Your task to perform on an android device: remove spam from my inbox in the gmail app Image 0: 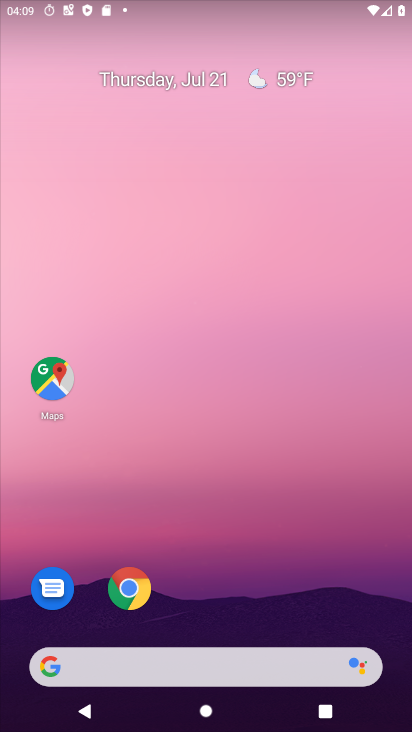
Step 0: drag from (209, 607) to (217, 67)
Your task to perform on an android device: remove spam from my inbox in the gmail app Image 1: 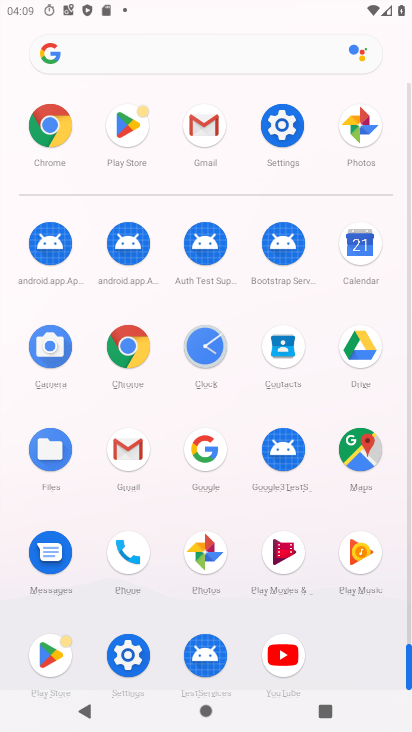
Step 1: click (126, 464)
Your task to perform on an android device: remove spam from my inbox in the gmail app Image 2: 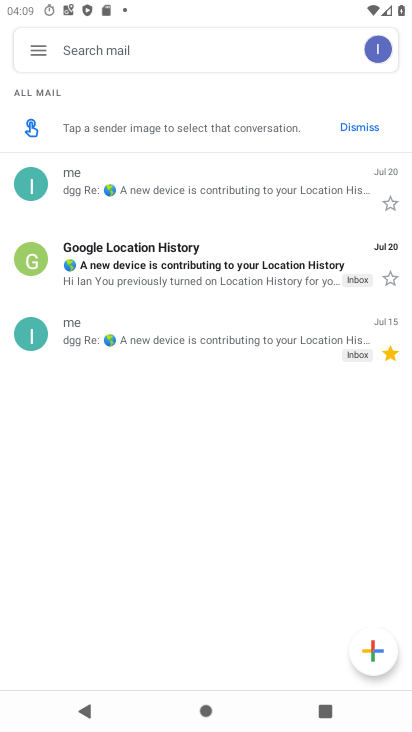
Step 2: click (33, 55)
Your task to perform on an android device: remove spam from my inbox in the gmail app Image 3: 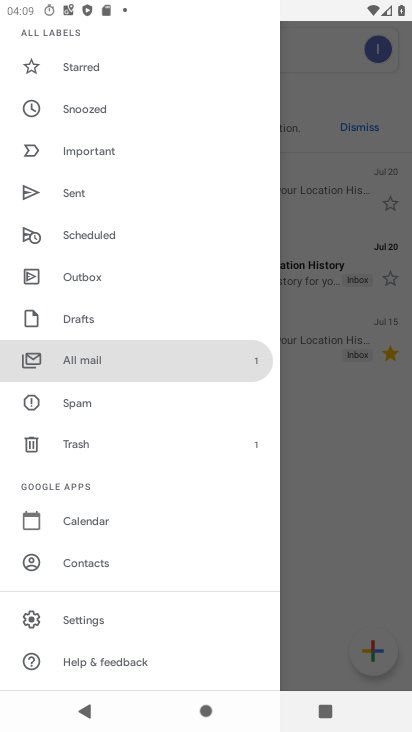
Step 3: click (73, 400)
Your task to perform on an android device: remove spam from my inbox in the gmail app Image 4: 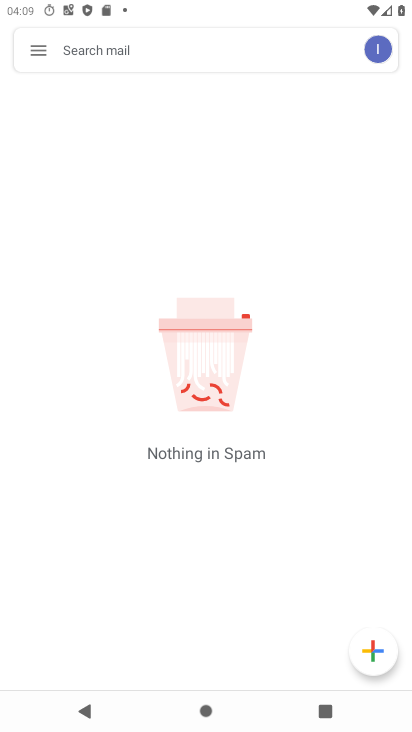
Step 4: task complete